Your task to perform on an android device: check the backup settings in the google photos Image 0: 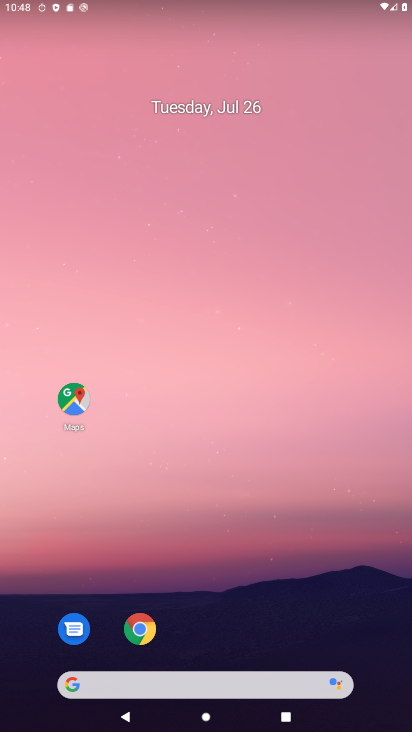
Step 0: drag from (336, 621) to (160, 23)
Your task to perform on an android device: check the backup settings in the google photos Image 1: 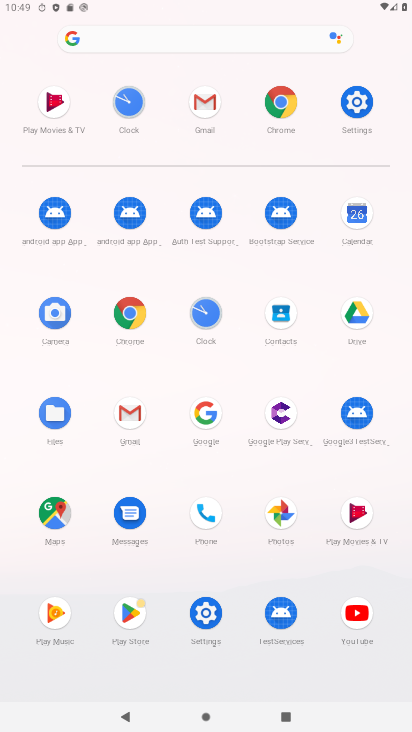
Step 1: click (277, 507)
Your task to perform on an android device: check the backup settings in the google photos Image 2: 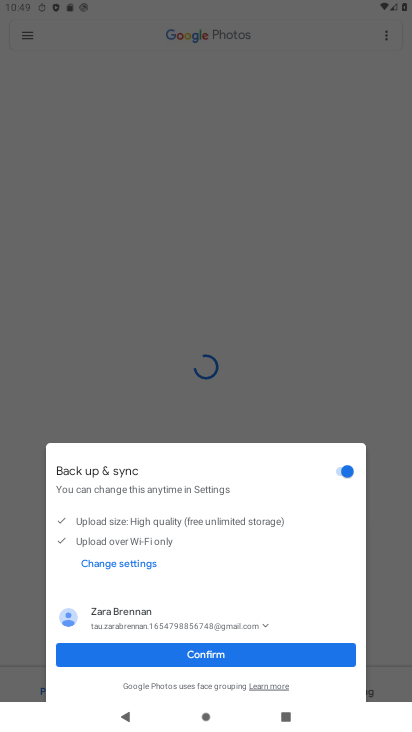
Step 2: click (231, 658)
Your task to perform on an android device: check the backup settings in the google photos Image 3: 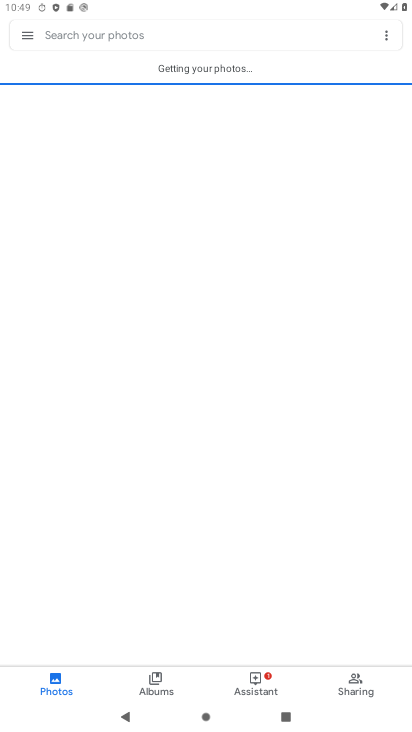
Step 3: click (22, 34)
Your task to perform on an android device: check the backup settings in the google photos Image 4: 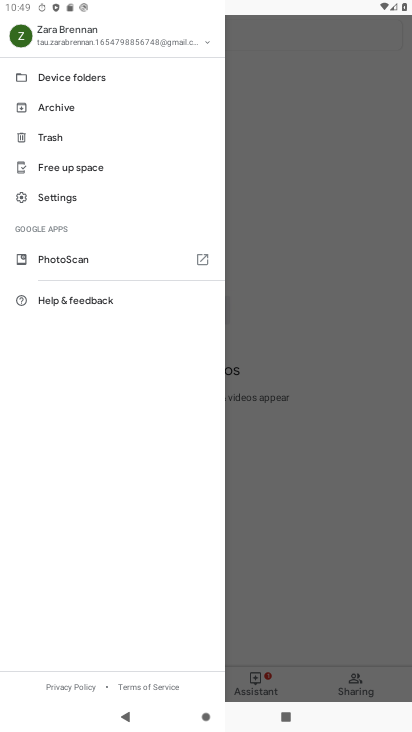
Step 4: click (70, 195)
Your task to perform on an android device: check the backup settings in the google photos Image 5: 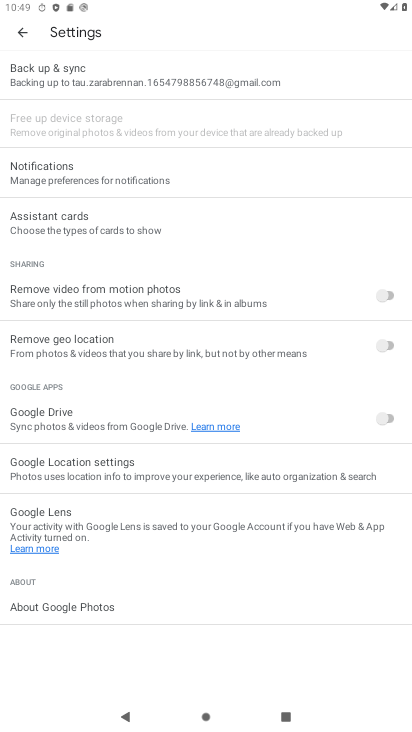
Step 5: click (175, 79)
Your task to perform on an android device: check the backup settings in the google photos Image 6: 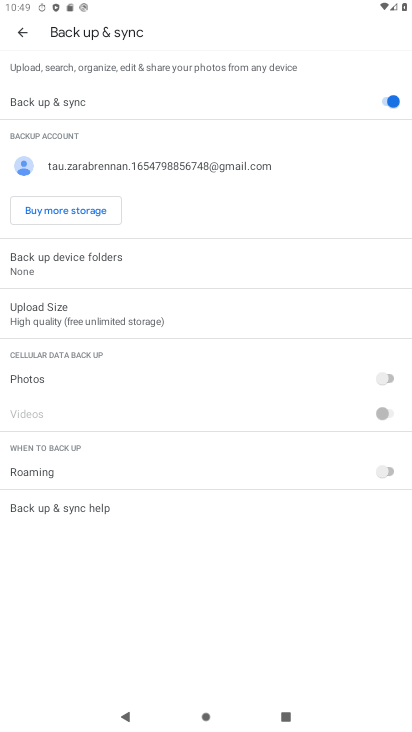
Step 6: task complete